Your task to perform on an android device: Go to Google Image 0: 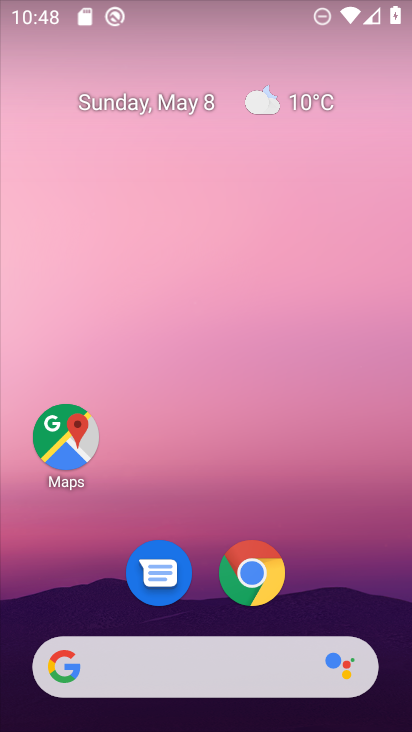
Step 0: drag from (327, 574) to (350, 0)
Your task to perform on an android device: Go to Google Image 1: 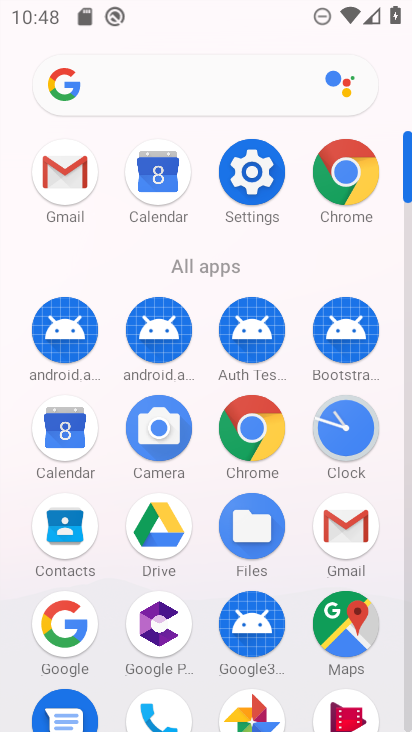
Step 1: click (75, 623)
Your task to perform on an android device: Go to Google Image 2: 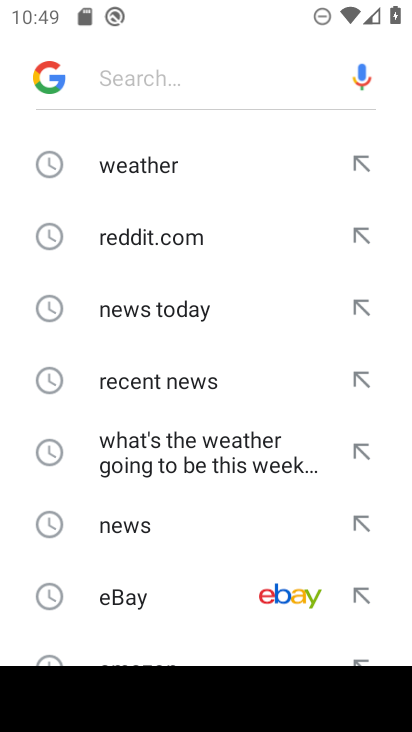
Step 2: task complete